Your task to perform on an android device: install app "Reddit" Image 0: 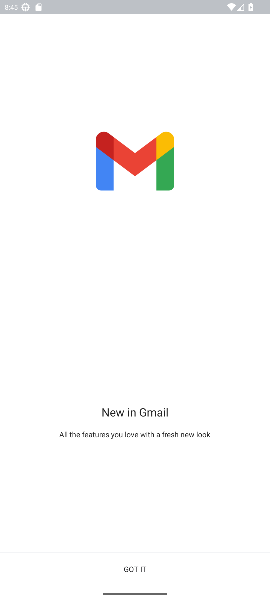
Step 0: press home button
Your task to perform on an android device: install app "Reddit" Image 1: 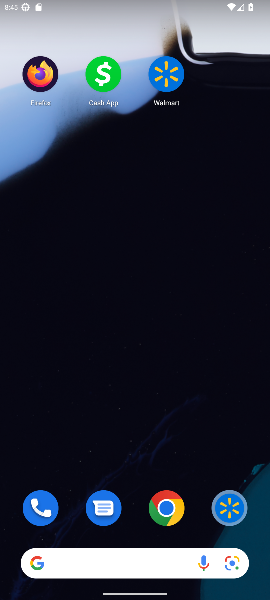
Step 1: drag from (148, 559) to (178, 29)
Your task to perform on an android device: install app "Reddit" Image 2: 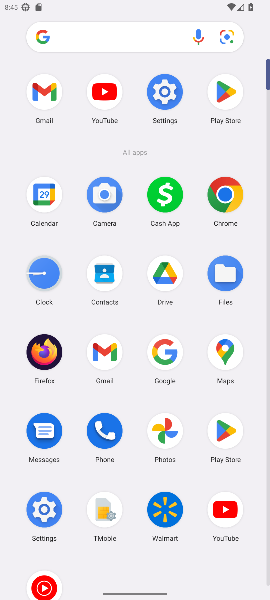
Step 2: click (229, 76)
Your task to perform on an android device: install app "Reddit" Image 3: 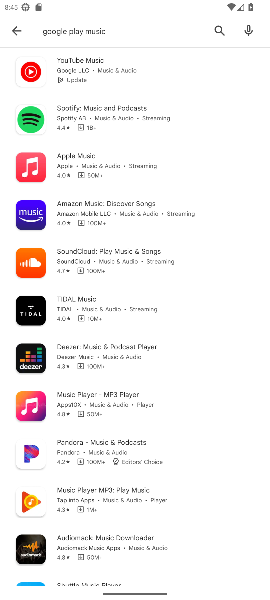
Step 3: click (220, 26)
Your task to perform on an android device: install app "Reddit" Image 4: 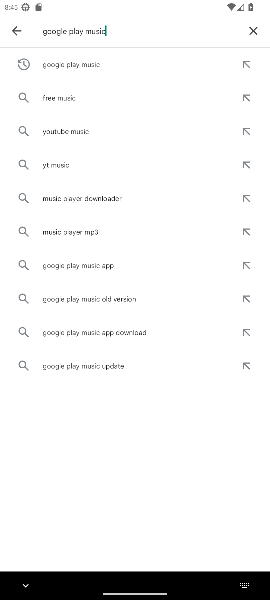
Step 4: click (249, 27)
Your task to perform on an android device: install app "Reddit" Image 5: 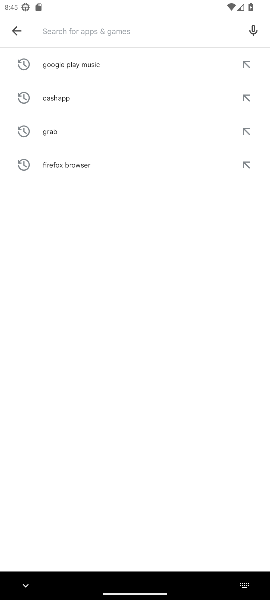
Step 5: type "reddit"
Your task to perform on an android device: install app "Reddit" Image 6: 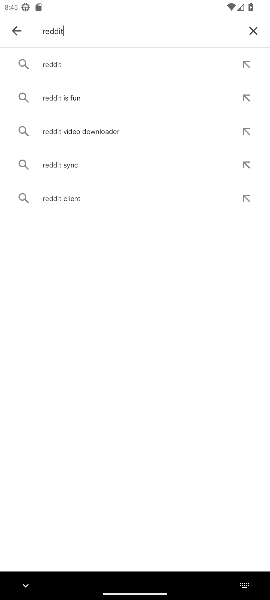
Step 6: click (60, 59)
Your task to perform on an android device: install app "Reddit" Image 7: 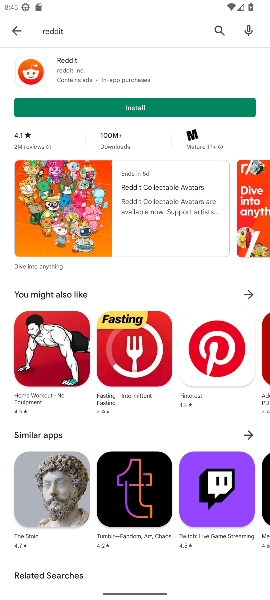
Step 7: click (139, 105)
Your task to perform on an android device: install app "Reddit" Image 8: 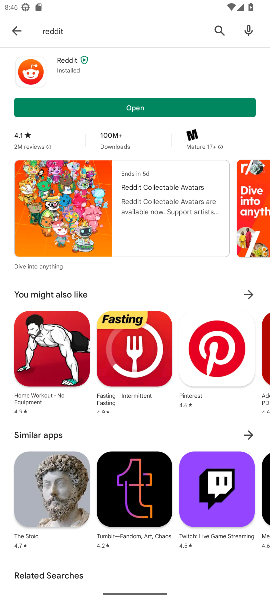
Step 8: task complete